Your task to perform on an android device: Show me the alarms in the clock app Image 0: 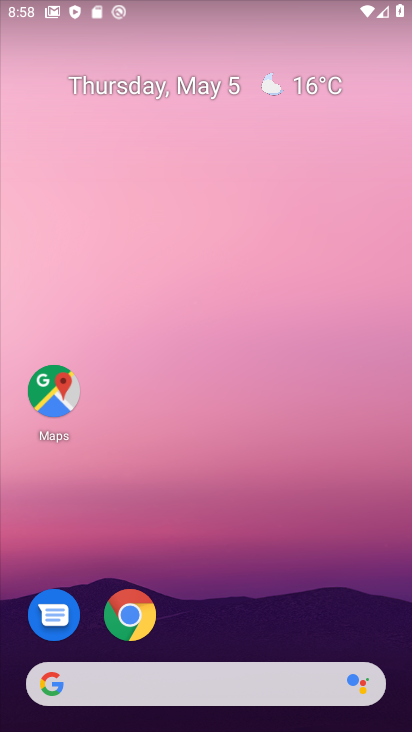
Step 0: drag from (279, 557) to (267, 121)
Your task to perform on an android device: Show me the alarms in the clock app Image 1: 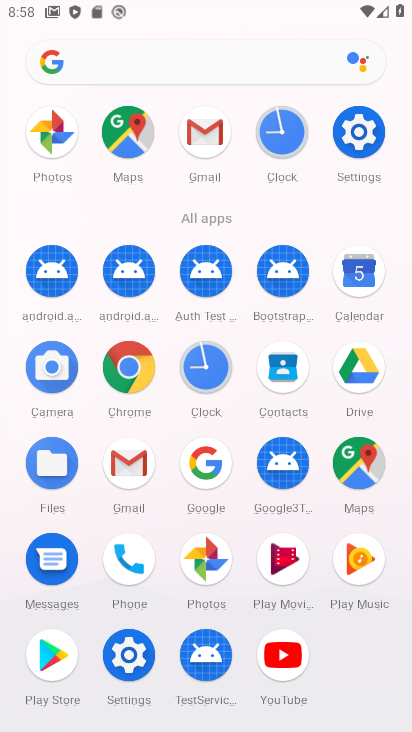
Step 1: click (211, 369)
Your task to perform on an android device: Show me the alarms in the clock app Image 2: 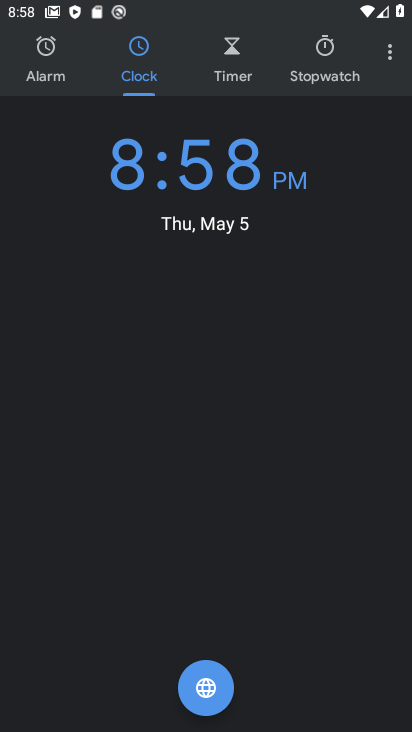
Step 2: click (51, 65)
Your task to perform on an android device: Show me the alarms in the clock app Image 3: 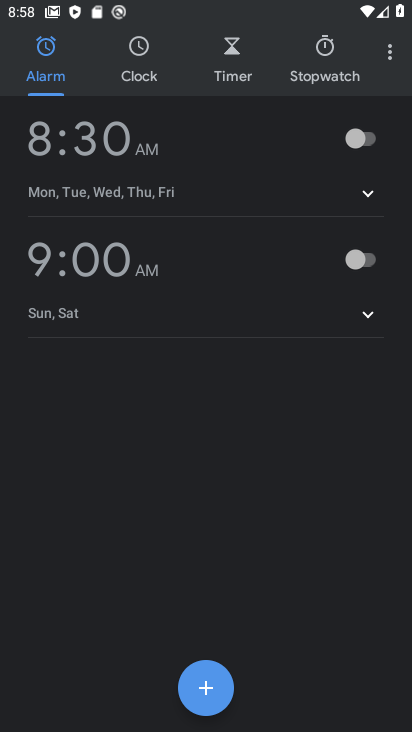
Step 3: task complete